Your task to perform on an android device: turn off sleep mode Image 0: 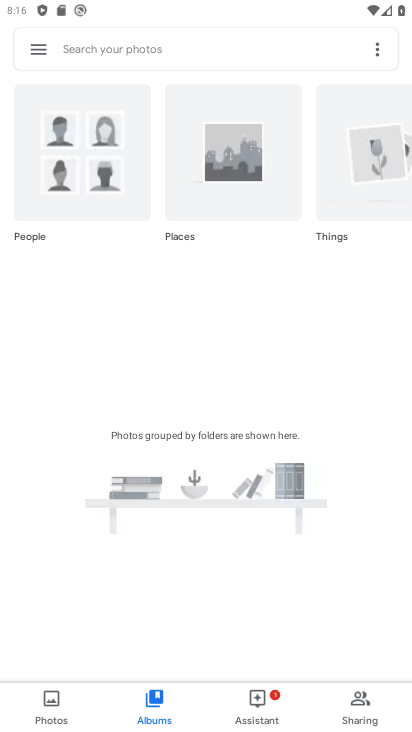
Step 0: press home button
Your task to perform on an android device: turn off sleep mode Image 1: 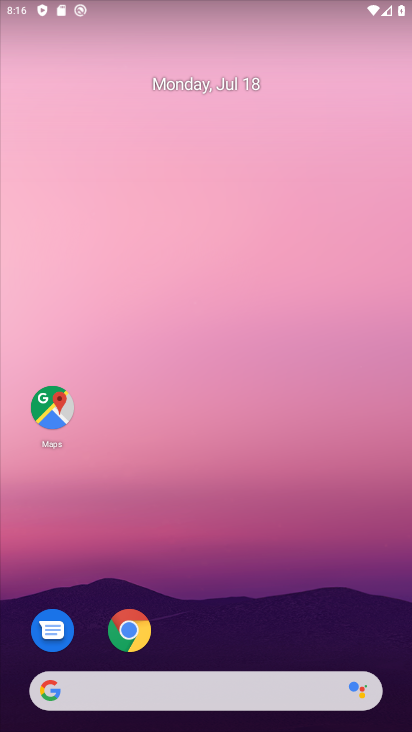
Step 1: drag from (249, 498) to (255, 231)
Your task to perform on an android device: turn off sleep mode Image 2: 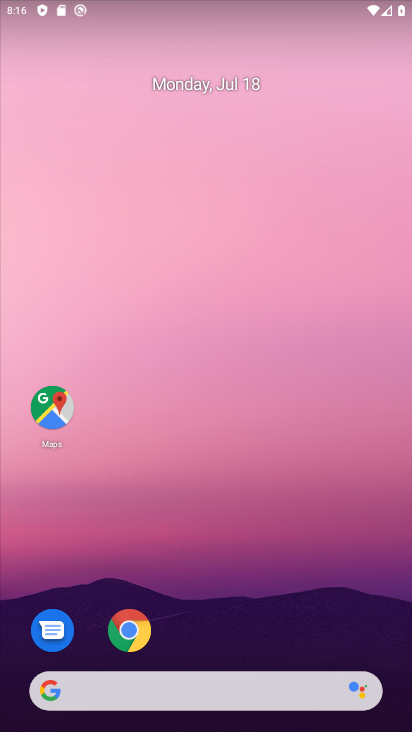
Step 2: drag from (203, 574) to (224, 286)
Your task to perform on an android device: turn off sleep mode Image 3: 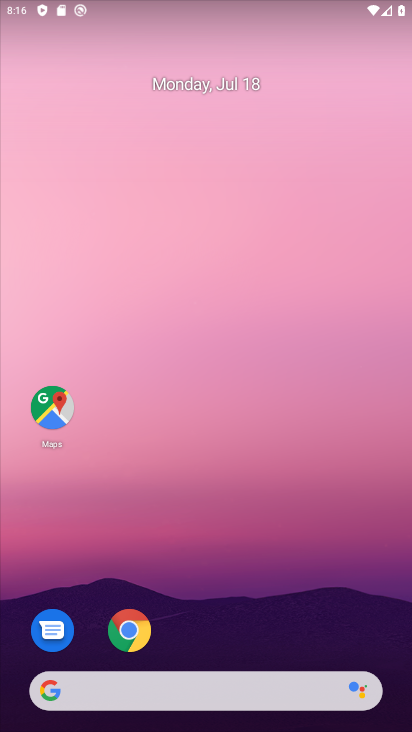
Step 3: drag from (266, 541) to (296, 115)
Your task to perform on an android device: turn off sleep mode Image 4: 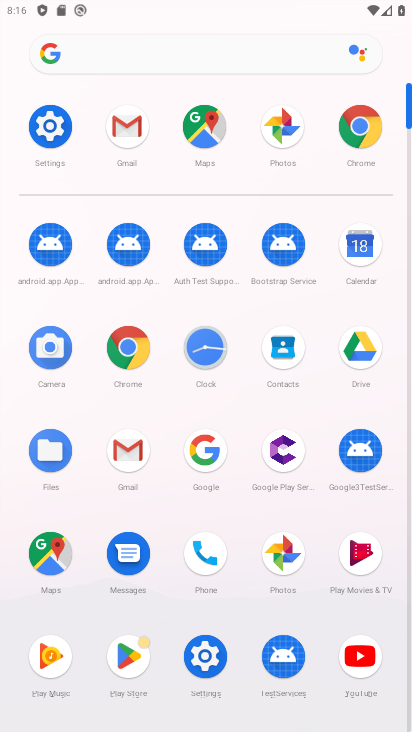
Step 4: click (44, 133)
Your task to perform on an android device: turn off sleep mode Image 5: 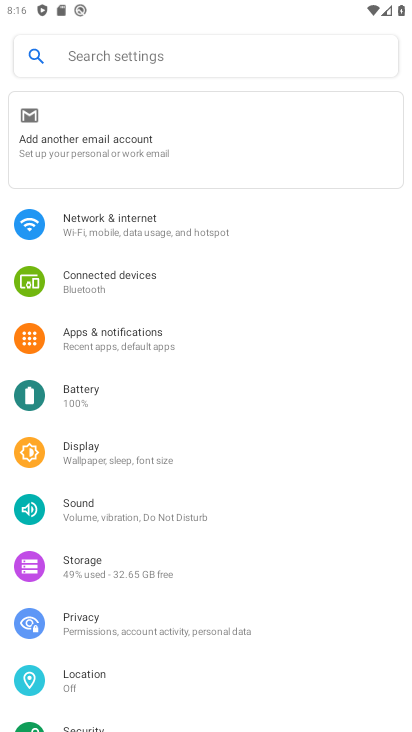
Step 5: task complete